Your task to perform on an android device: turn on improve location accuracy Image 0: 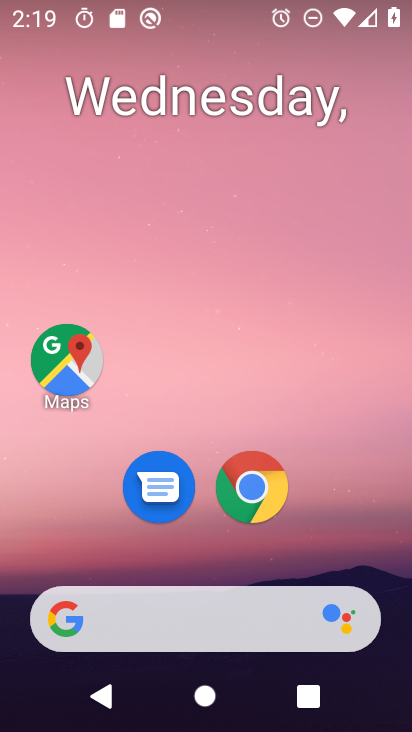
Step 0: drag from (133, 544) to (206, 27)
Your task to perform on an android device: turn on improve location accuracy Image 1: 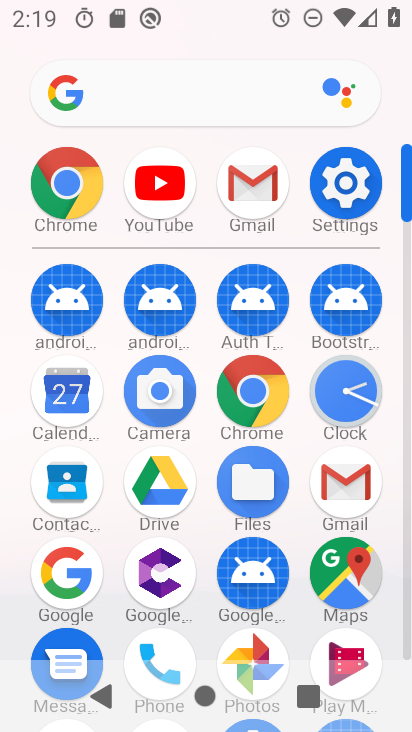
Step 1: click (353, 179)
Your task to perform on an android device: turn on improve location accuracy Image 2: 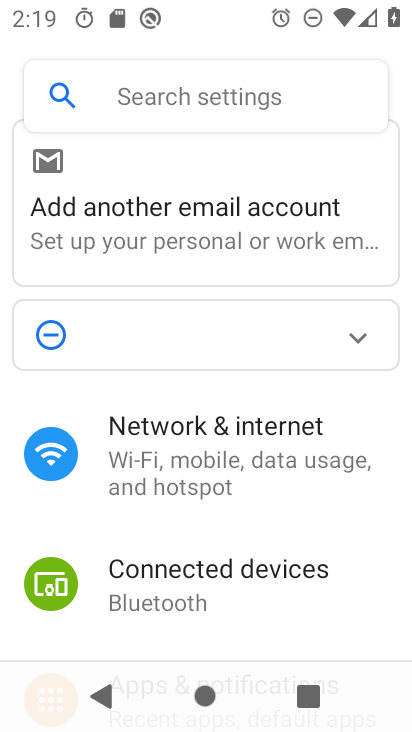
Step 2: drag from (203, 578) to (333, 25)
Your task to perform on an android device: turn on improve location accuracy Image 3: 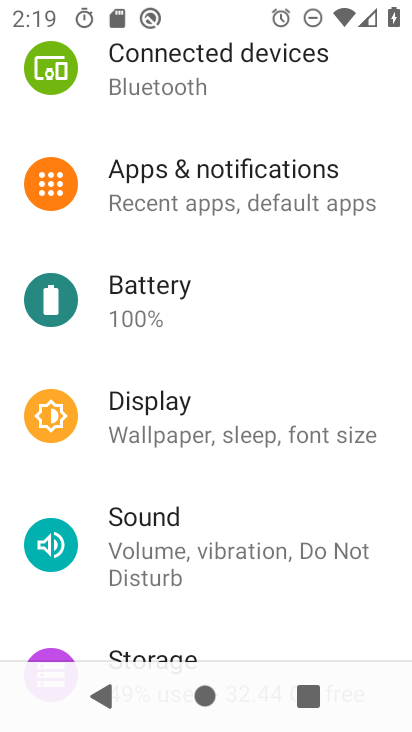
Step 3: drag from (215, 541) to (344, 33)
Your task to perform on an android device: turn on improve location accuracy Image 4: 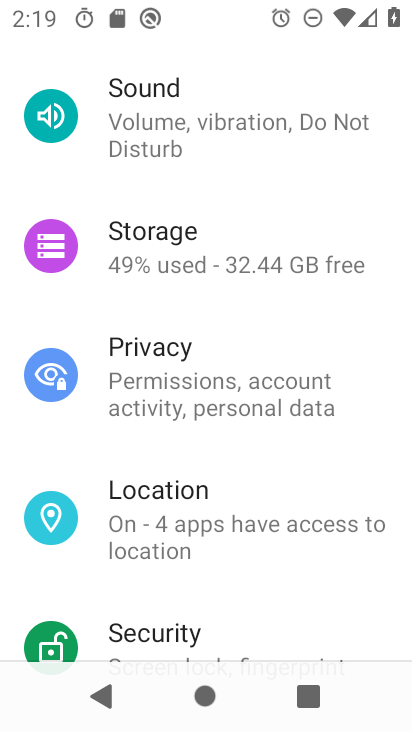
Step 4: click (187, 522)
Your task to perform on an android device: turn on improve location accuracy Image 5: 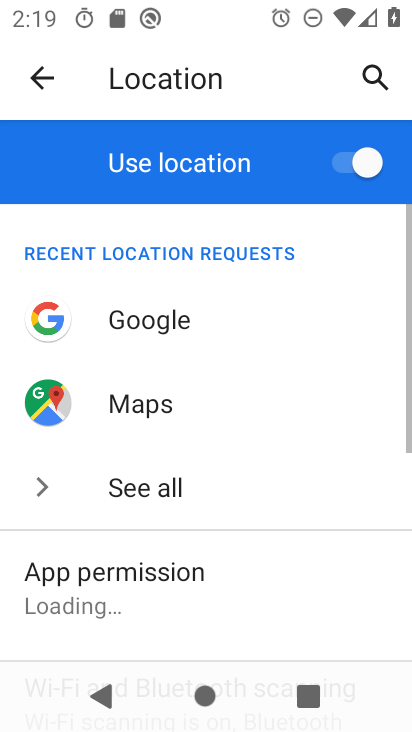
Step 5: drag from (171, 553) to (304, 97)
Your task to perform on an android device: turn on improve location accuracy Image 6: 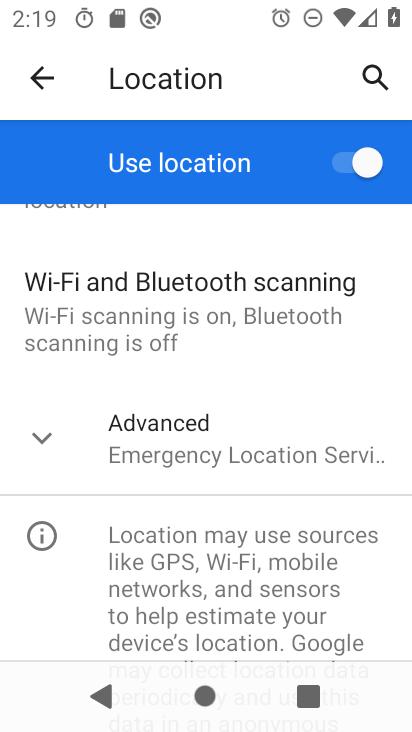
Step 6: click (236, 440)
Your task to perform on an android device: turn on improve location accuracy Image 7: 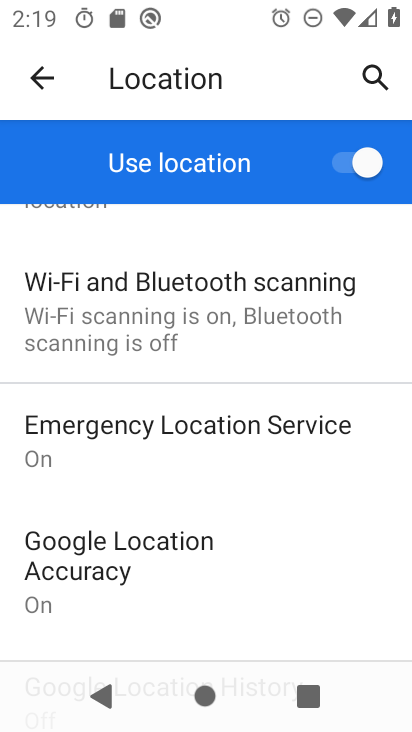
Step 7: click (141, 578)
Your task to perform on an android device: turn on improve location accuracy Image 8: 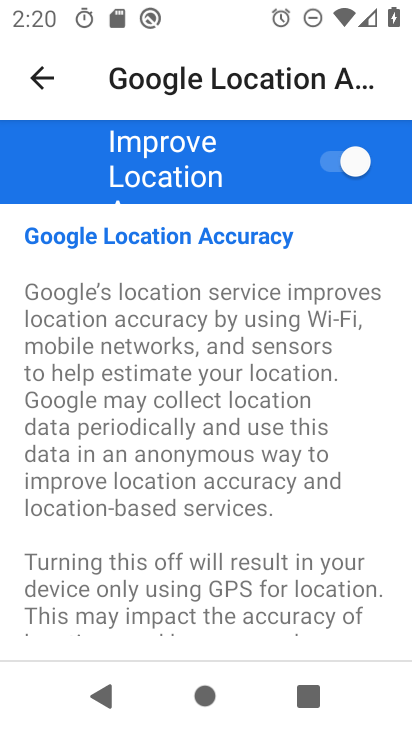
Step 8: task complete